Your task to perform on an android device: Go to accessibility settings Image 0: 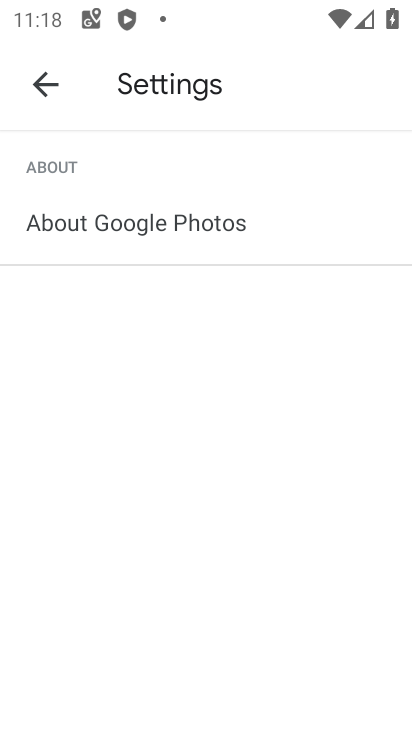
Step 0: press home button
Your task to perform on an android device: Go to accessibility settings Image 1: 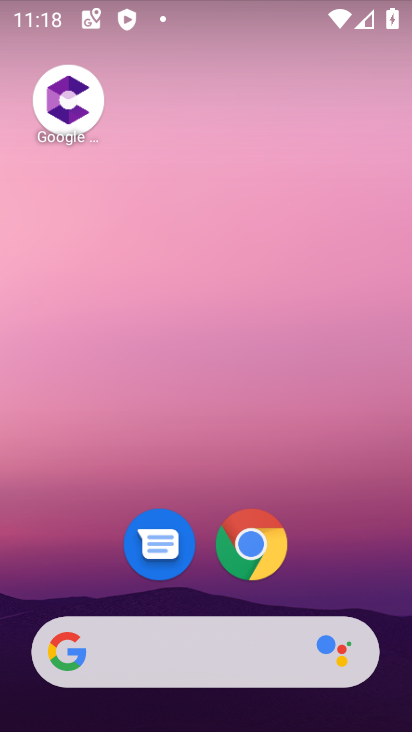
Step 1: drag from (322, 585) to (346, 110)
Your task to perform on an android device: Go to accessibility settings Image 2: 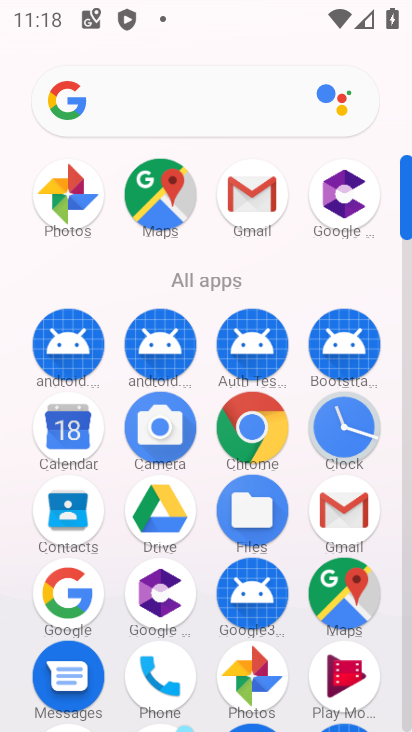
Step 2: click (407, 720)
Your task to perform on an android device: Go to accessibility settings Image 3: 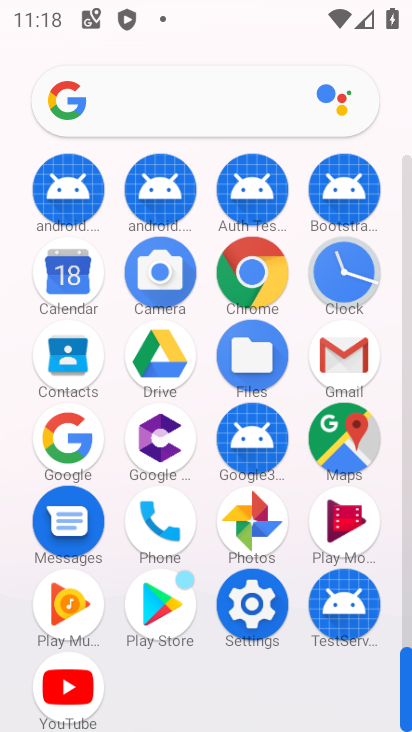
Step 3: click (258, 638)
Your task to perform on an android device: Go to accessibility settings Image 4: 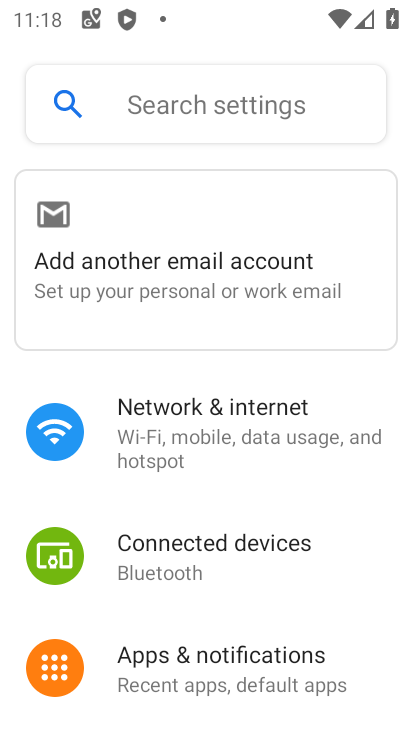
Step 4: drag from (226, 621) to (254, 23)
Your task to perform on an android device: Go to accessibility settings Image 5: 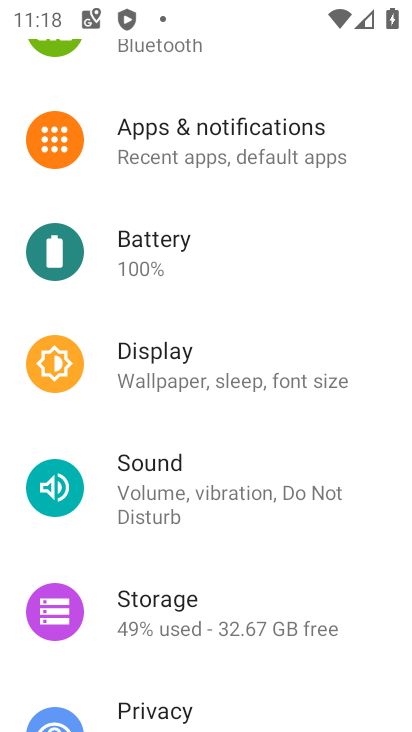
Step 5: drag from (262, 536) to (141, 96)
Your task to perform on an android device: Go to accessibility settings Image 6: 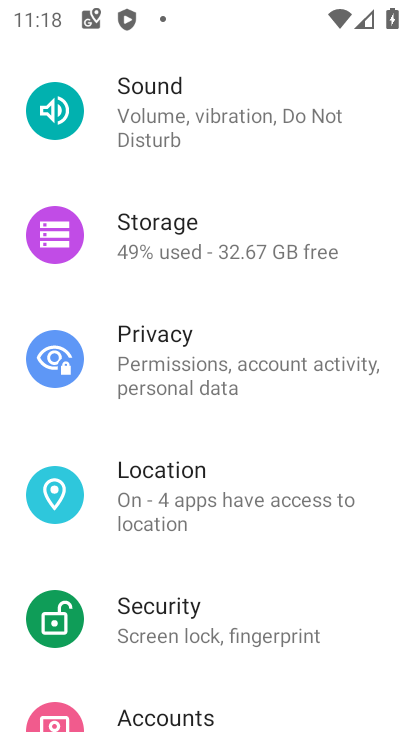
Step 6: drag from (158, 542) to (201, 163)
Your task to perform on an android device: Go to accessibility settings Image 7: 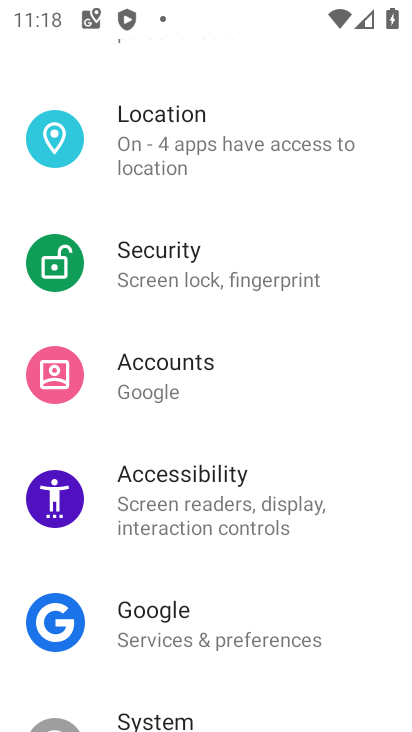
Step 7: click (198, 518)
Your task to perform on an android device: Go to accessibility settings Image 8: 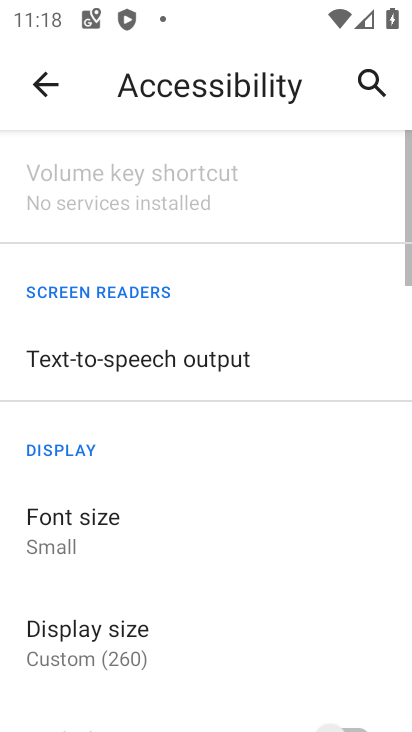
Step 8: task complete